Your task to perform on an android device: change text size in settings app Image 0: 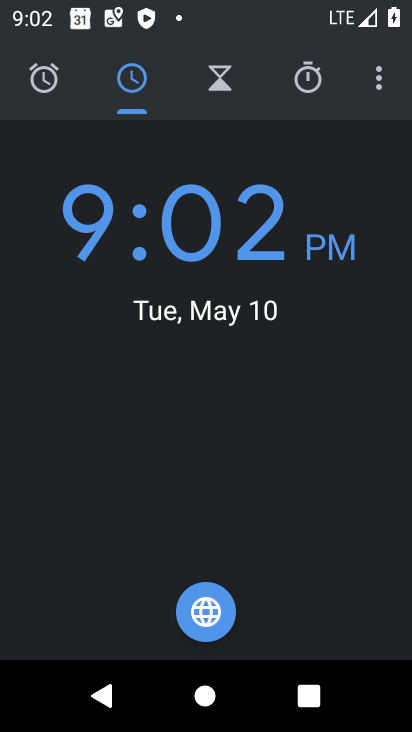
Step 0: press home button
Your task to perform on an android device: change text size in settings app Image 1: 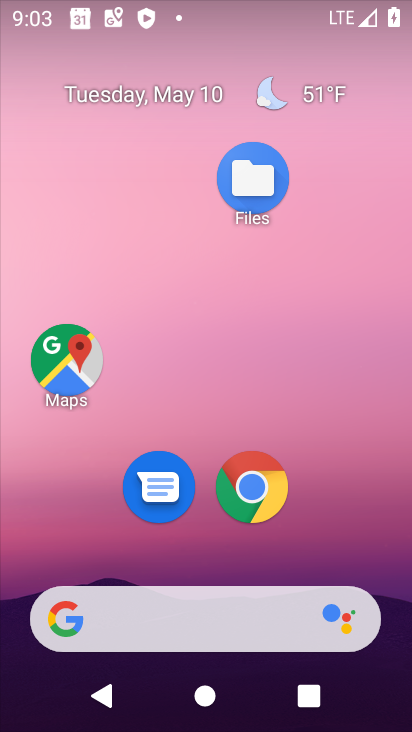
Step 1: drag from (217, 548) to (210, 93)
Your task to perform on an android device: change text size in settings app Image 2: 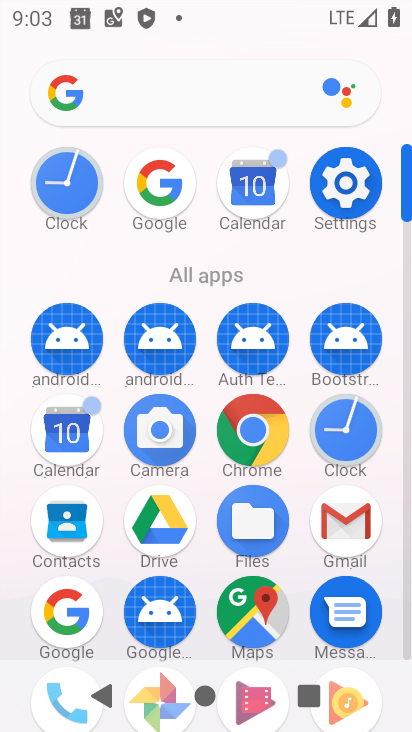
Step 2: click (346, 182)
Your task to perform on an android device: change text size in settings app Image 3: 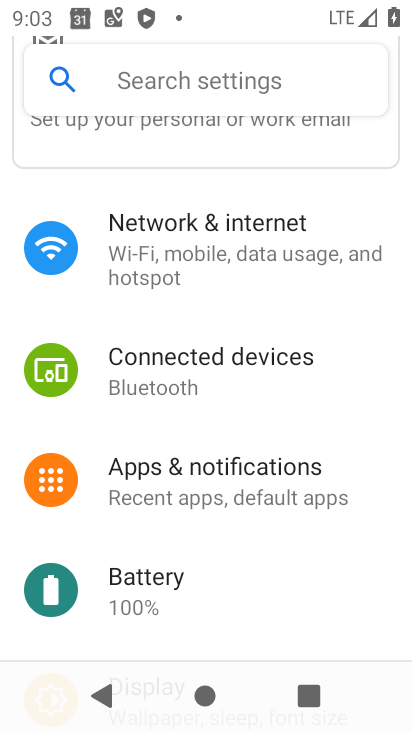
Step 3: drag from (267, 575) to (213, 85)
Your task to perform on an android device: change text size in settings app Image 4: 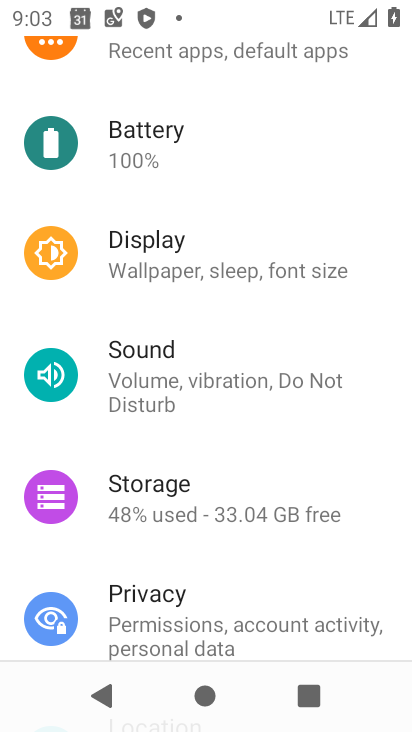
Step 4: click (191, 252)
Your task to perform on an android device: change text size in settings app Image 5: 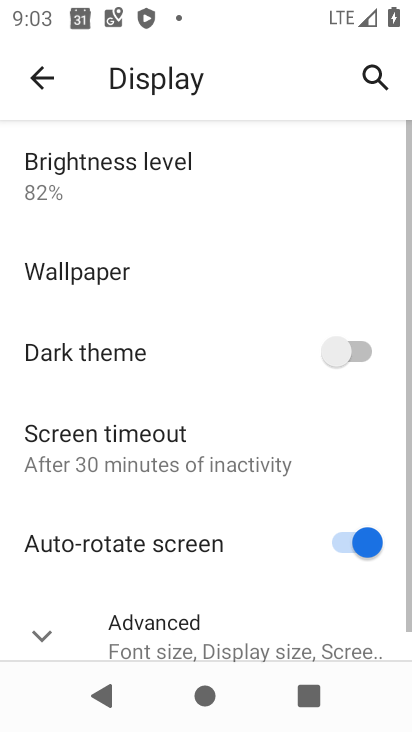
Step 5: drag from (164, 558) to (175, 348)
Your task to perform on an android device: change text size in settings app Image 6: 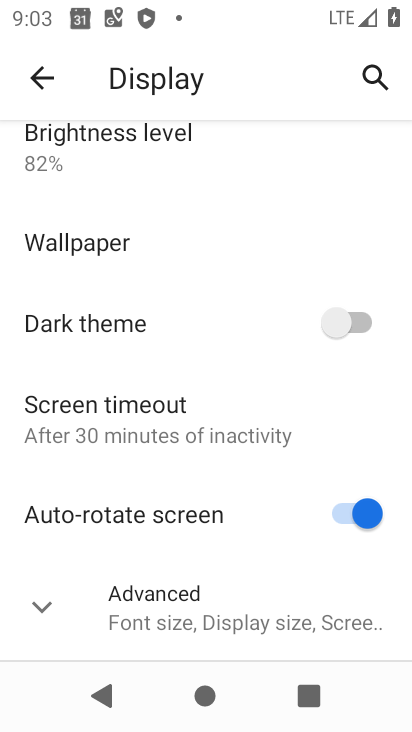
Step 6: click (139, 614)
Your task to perform on an android device: change text size in settings app Image 7: 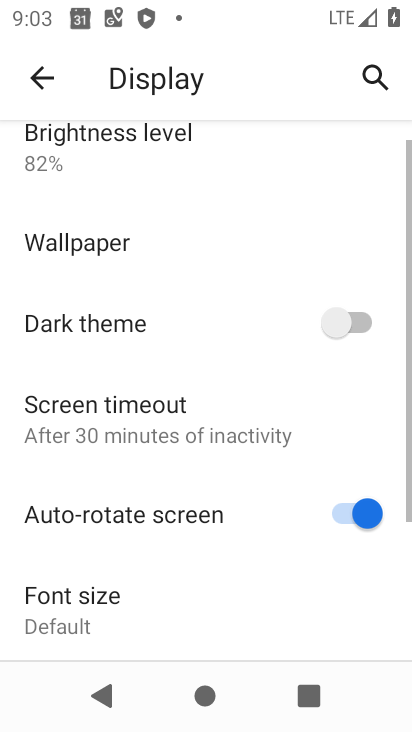
Step 7: drag from (153, 587) to (151, 380)
Your task to perform on an android device: change text size in settings app Image 8: 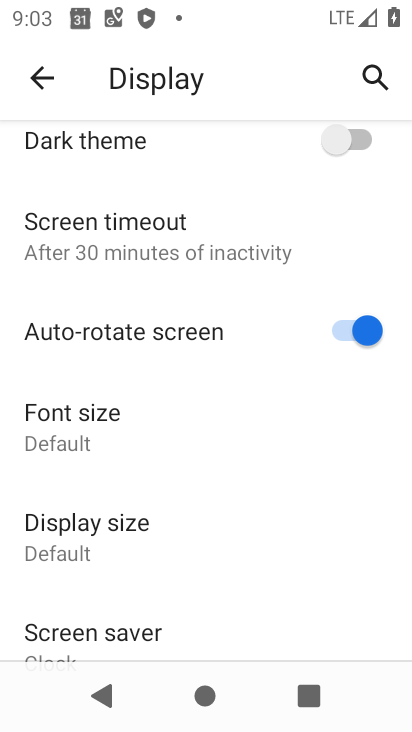
Step 8: click (107, 427)
Your task to perform on an android device: change text size in settings app Image 9: 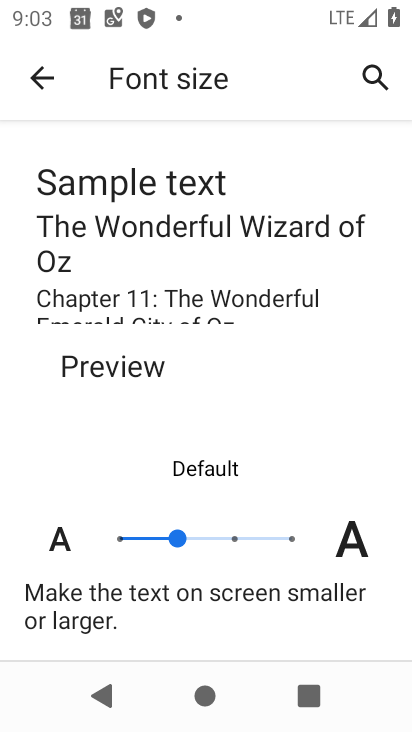
Step 9: task complete